Your task to perform on an android device: What is the news today? Image 0: 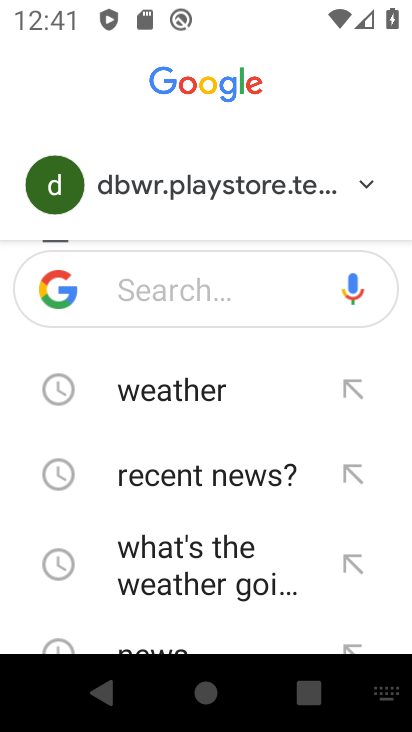
Step 0: press home button
Your task to perform on an android device: What is the news today? Image 1: 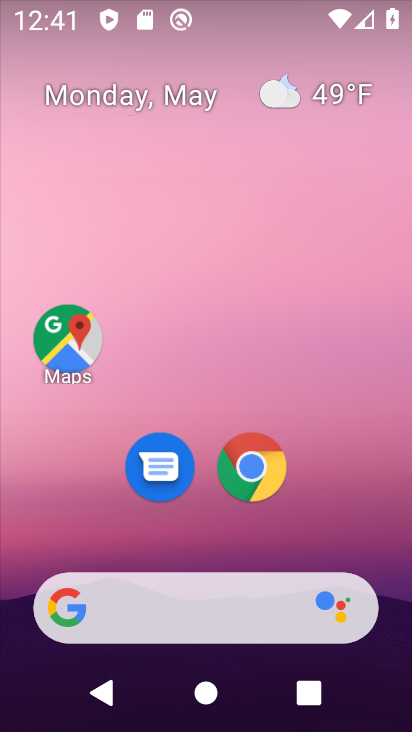
Step 1: click (260, 444)
Your task to perform on an android device: What is the news today? Image 2: 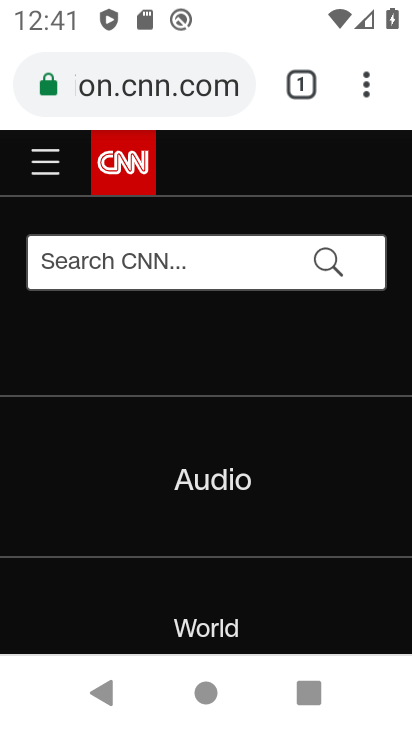
Step 2: click (183, 97)
Your task to perform on an android device: What is the news today? Image 3: 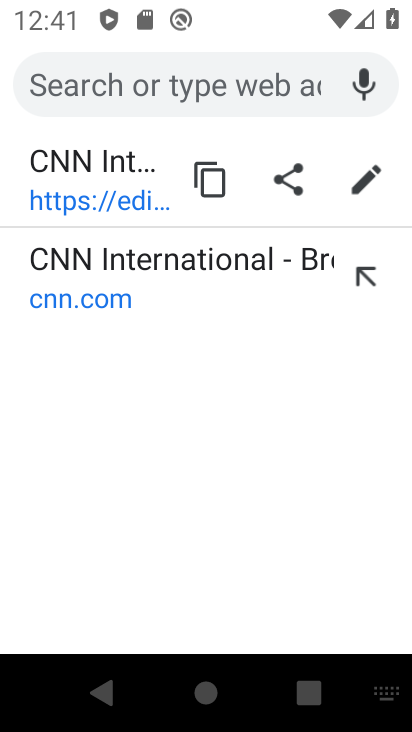
Step 3: type "what is the news today"
Your task to perform on an android device: What is the news today? Image 4: 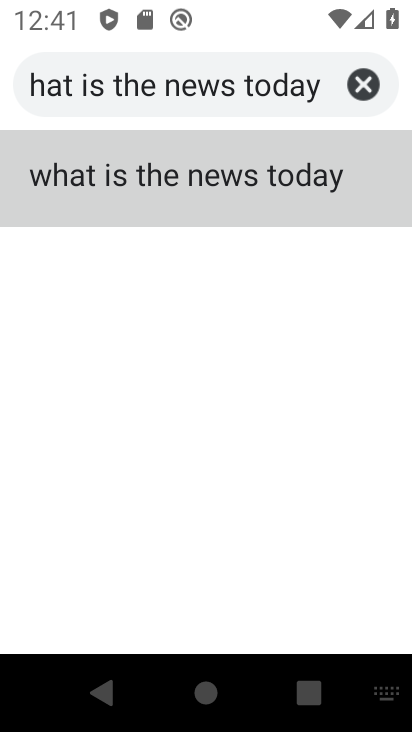
Step 4: click (81, 184)
Your task to perform on an android device: What is the news today? Image 5: 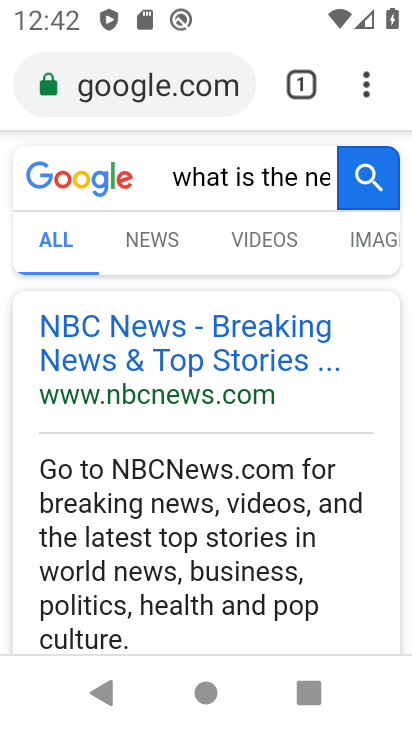
Step 5: task complete